Your task to perform on an android device: Go to accessibility settings Image 0: 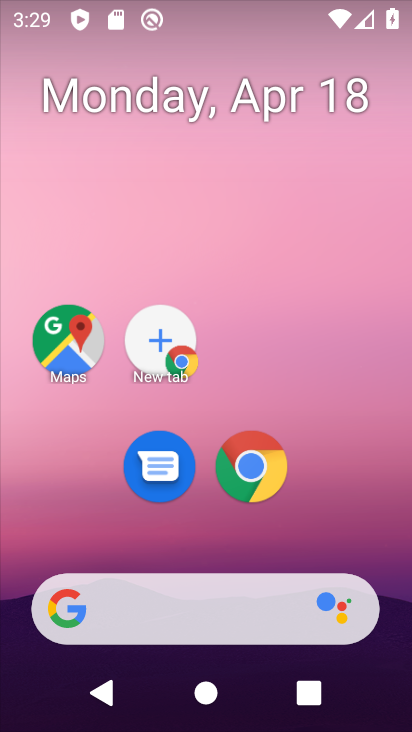
Step 0: drag from (373, 548) to (290, 42)
Your task to perform on an android device: Go to accessibility settings Image 1: 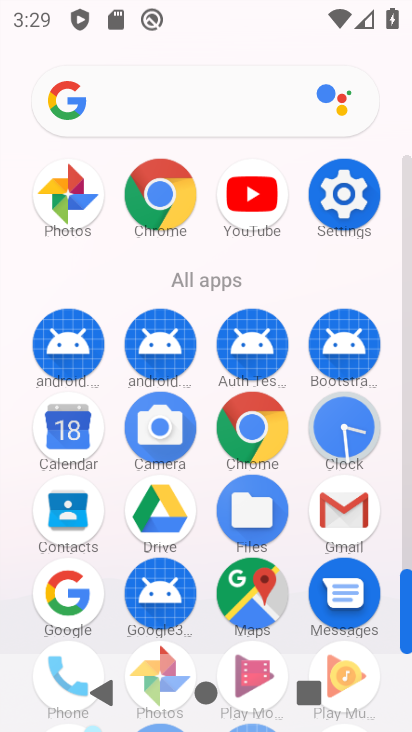
Step 1: click (342, 190)
Your task to perform on an android device: Go to accessibility settings Image 2: 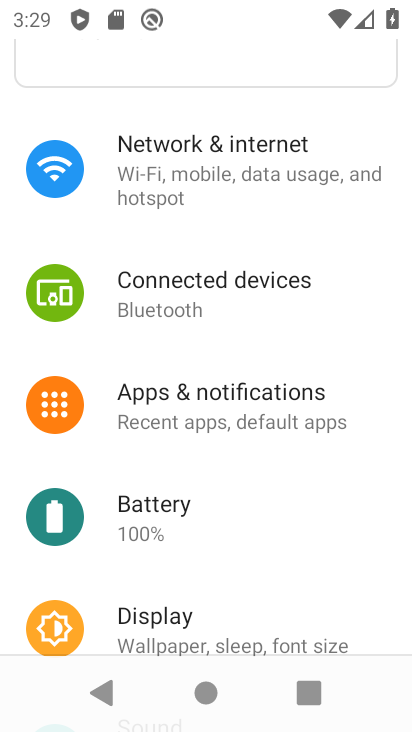
Step 2: drag from (246, 515) to (248, 94)
Your task to perform on an android device: Go to accessibility settings Image 3: 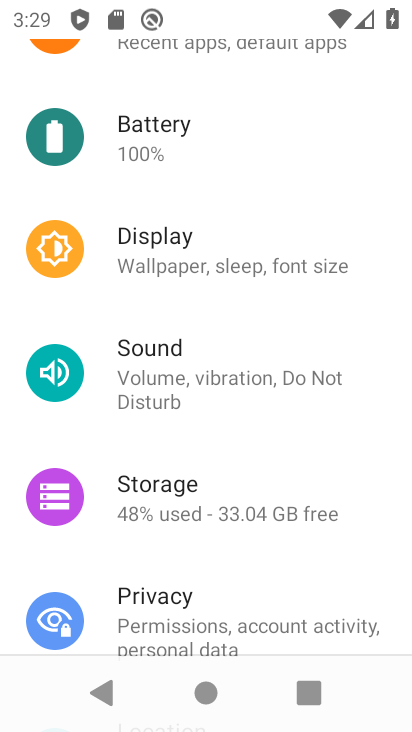
Step 3: drag from (227, 497) to (232, 109)
Your task to perform on an android device: Go to accessibility settings Image 4: 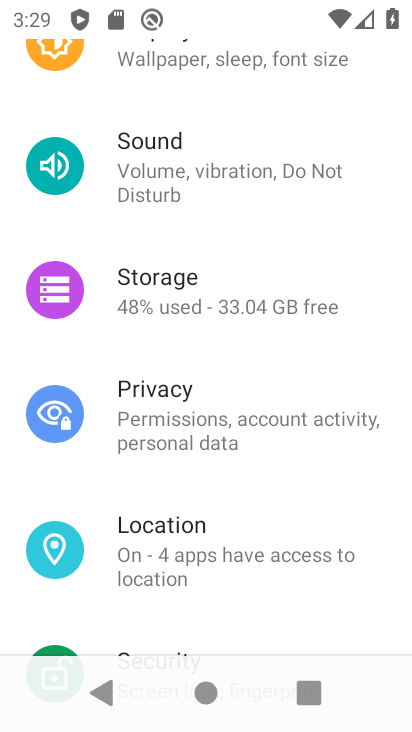
Step 4: drag from (234, 500) to (241, 82)
Your task to perform on an android device: Go to accessibility settings Image 5: 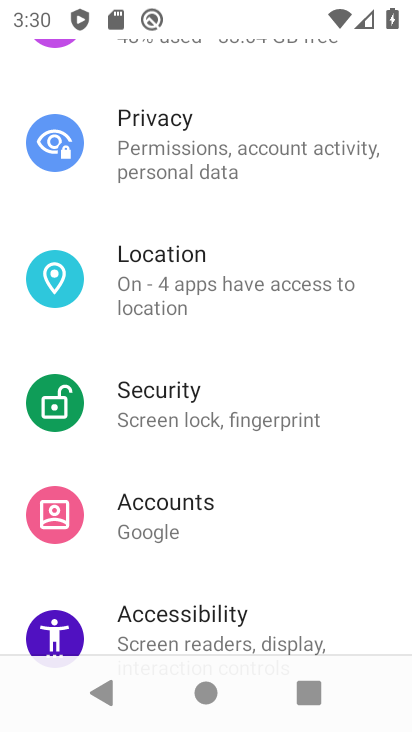
Step 5: drag from (246, 475) to (262, 105)
Your task to perform on an android device: Go to accessibility settings Image 6: 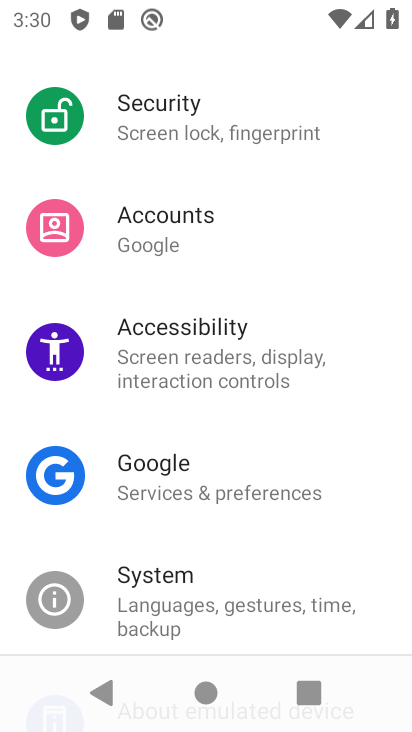
Step 6: drag from (229, 493) to (241, 117)
Your task to perform on an android device: Go to accessibility settings Image 7: 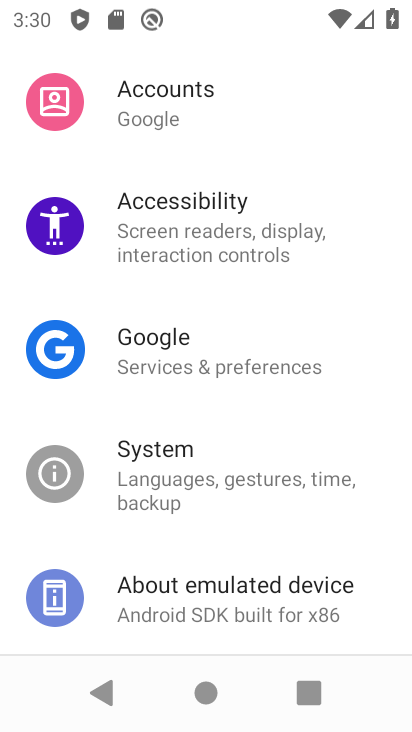
Step 7: drag from (228, 209) to (224, 489)
Your task to perform on an android device: Go to accessibility settings Image 8: 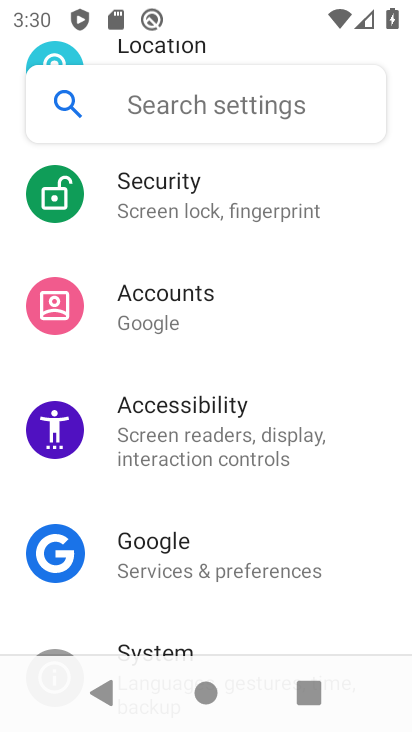
Step 8: drag from (264, 234) to (248, 518)
Your task to perform on an android device: Go to accessibility settings Image 9: 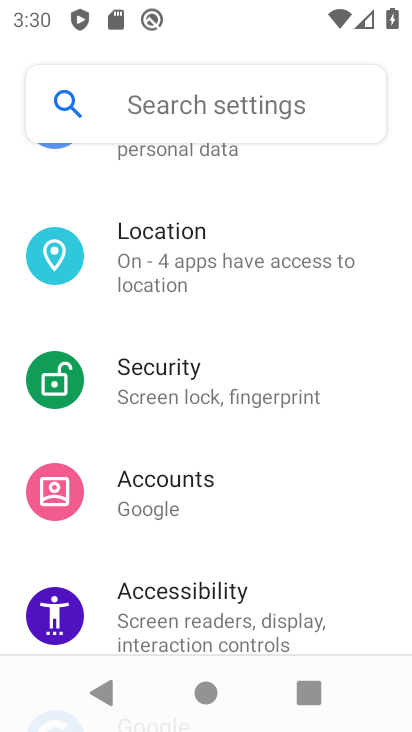
Step 9: drag from (241, 588) to (256, 313)
Your task to perform on an android device: Go to accessibility settings Image 10: 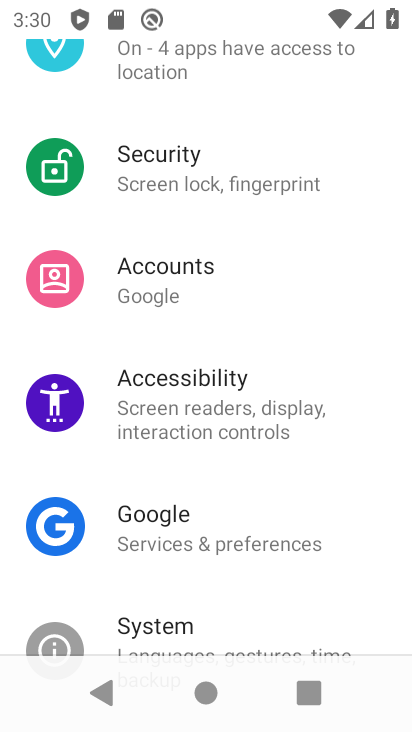
Step 10: click (207, 391)
Your task to perform on an android device: Go to accessibility settings Image 11: 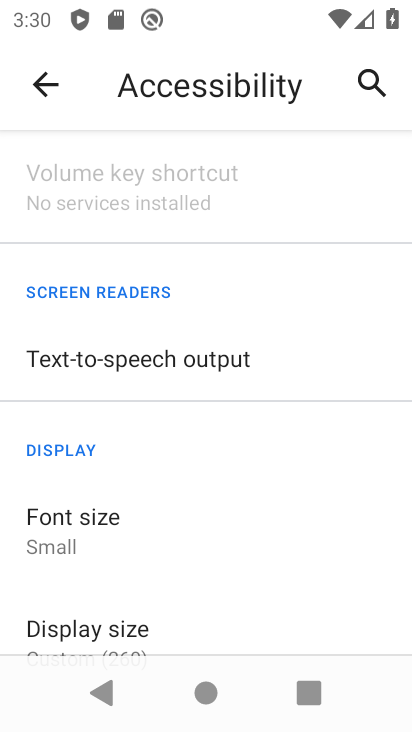
Step 11: task complete